Your task to perform on an android device: Go to ESPN.com Image 0: 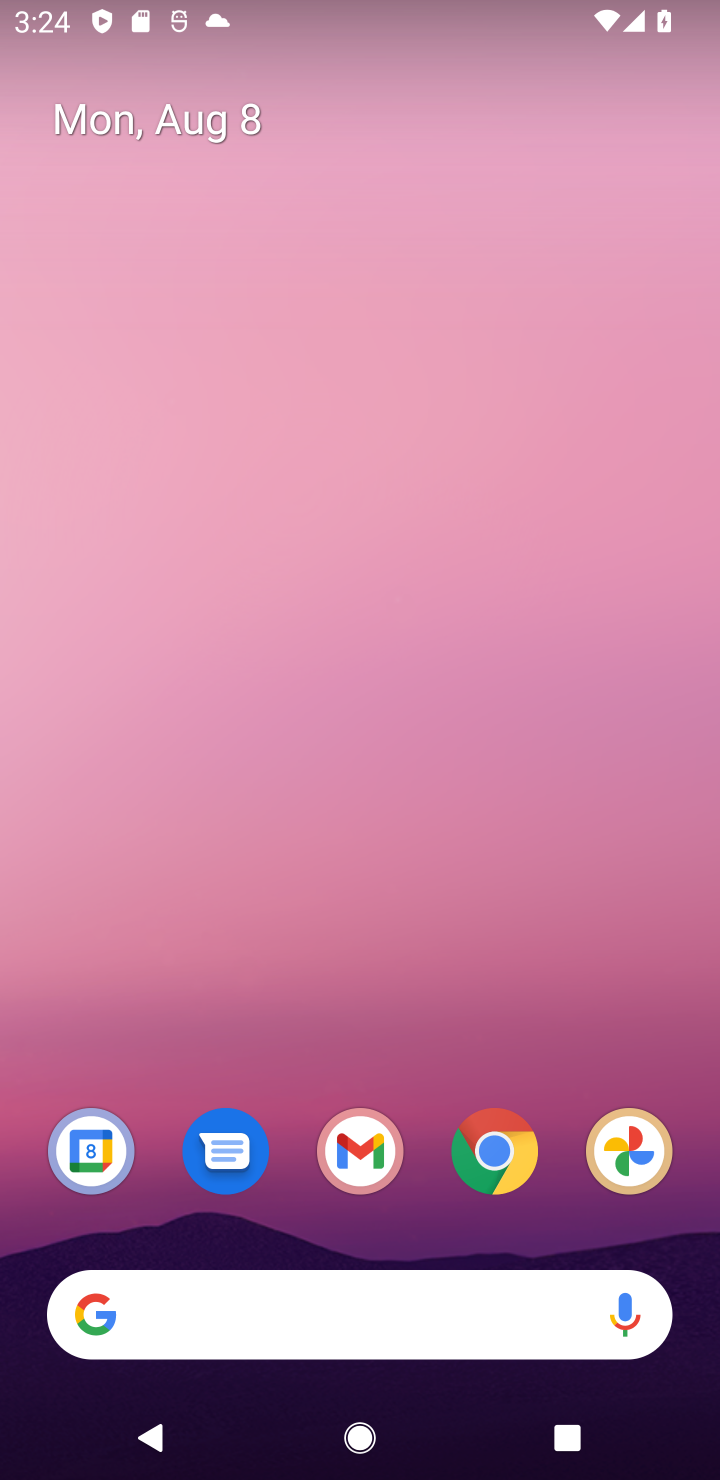
Step 0: click (530, 1182)
Your task to perform on an android device: Go to ESPN.com Image 1: 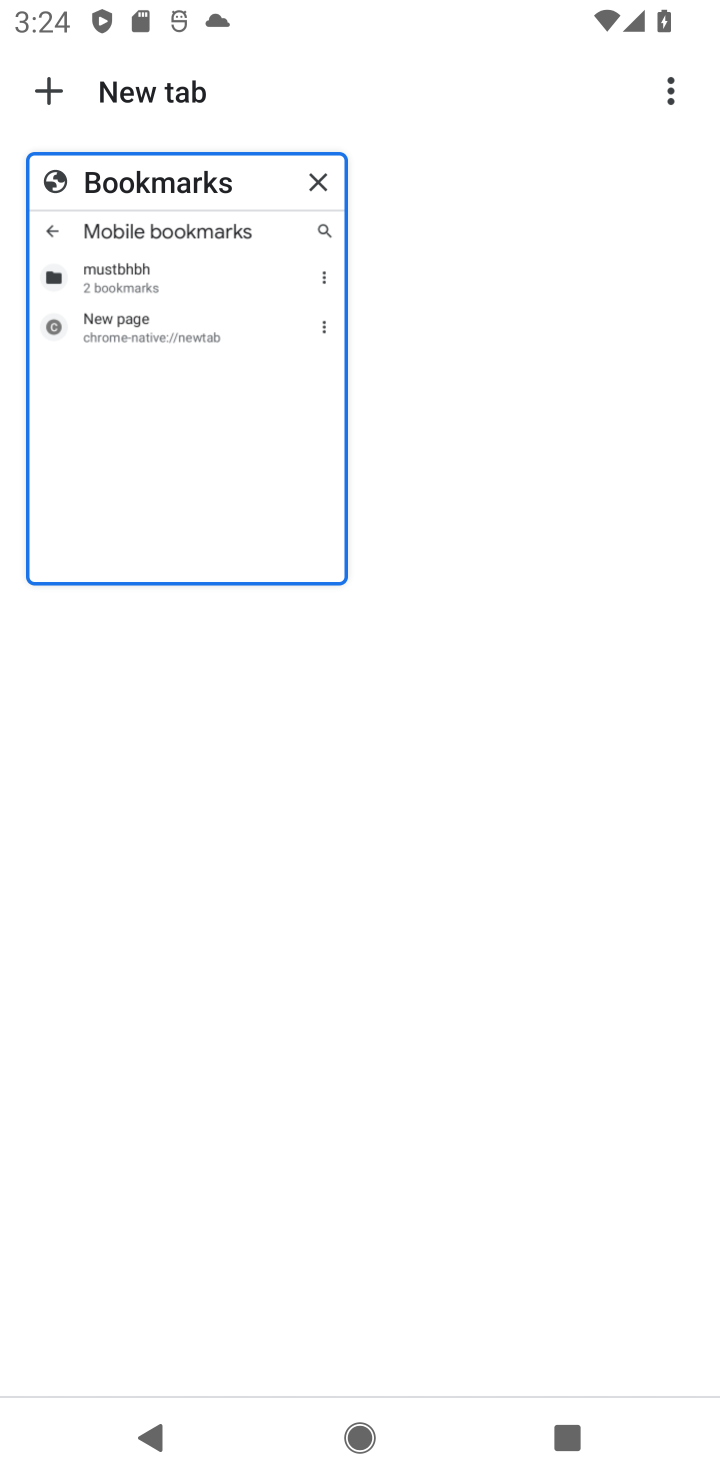
Step 1: click (48, 90)
Your task to perform on an android device: Go to ESPN.com Image 2: 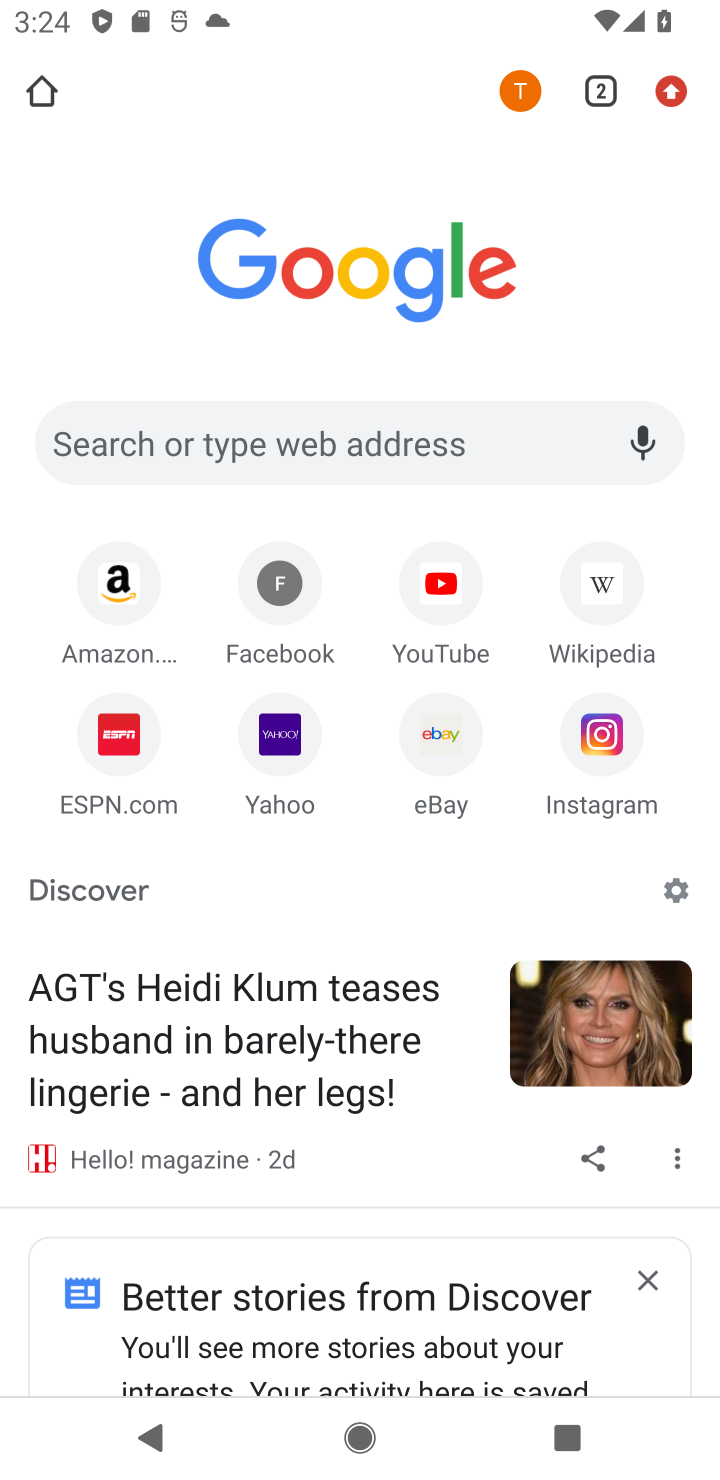
Step 2: click (131, 755)
Your task to perform on an android device: Go to ESPN.com Image 3: 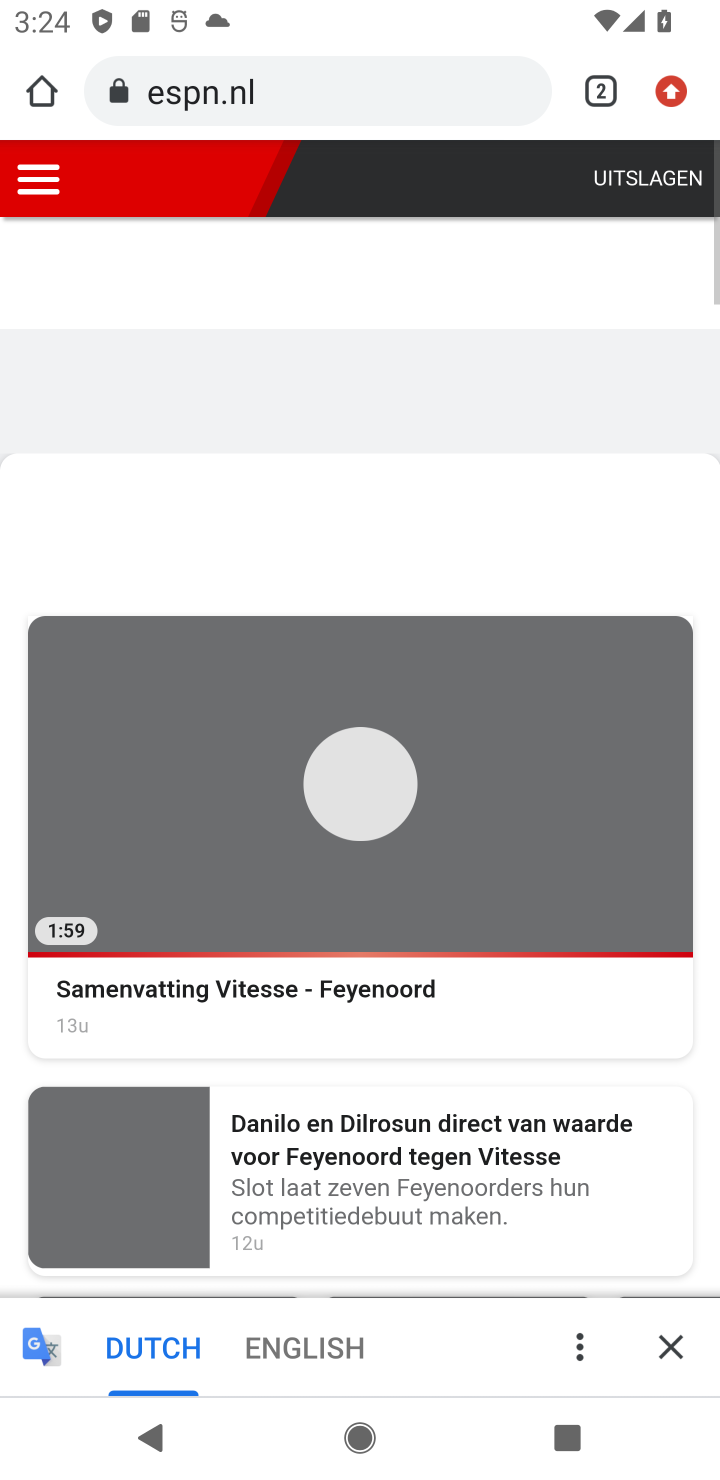
Step 3: task complete